Your task to perform on an android device: Go to Yahoo.com Image 0: 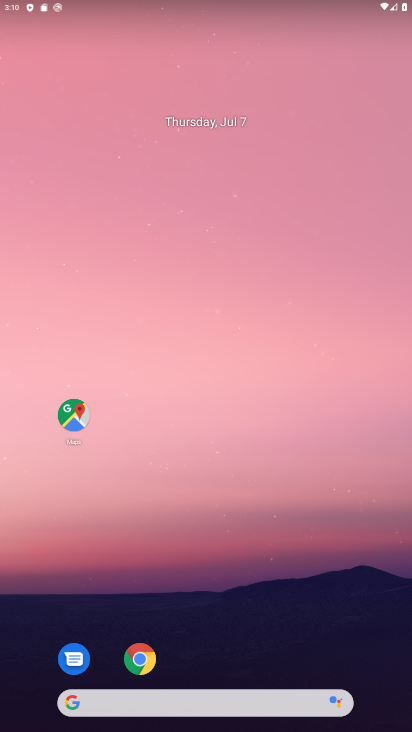
Step 0: click (144, 646)
Your task to perform on an android device: Go to Yahoo.com Image 1: 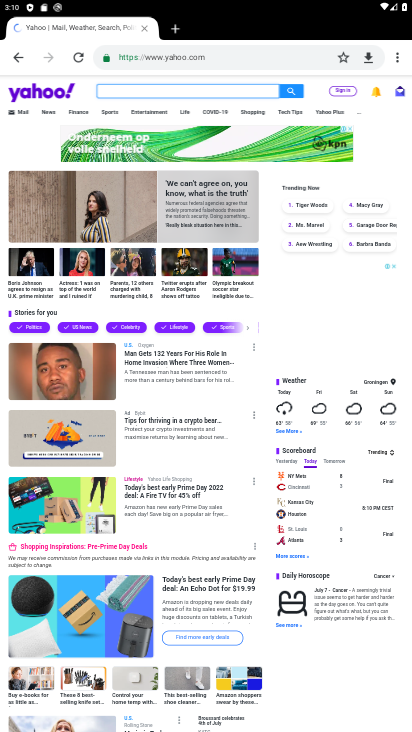
Step 1: task complete